Your task to perform on an android device: turn on translation in the chrome app Image 0: 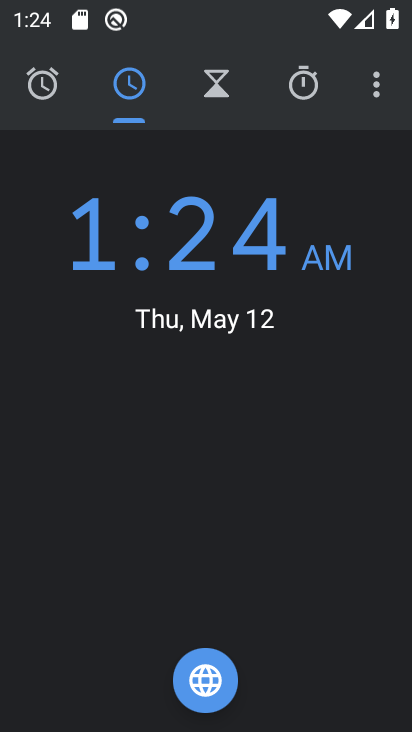
Step 0: press home button
Your task to perform on an android device: turn on translation in the chrome app Image 1: 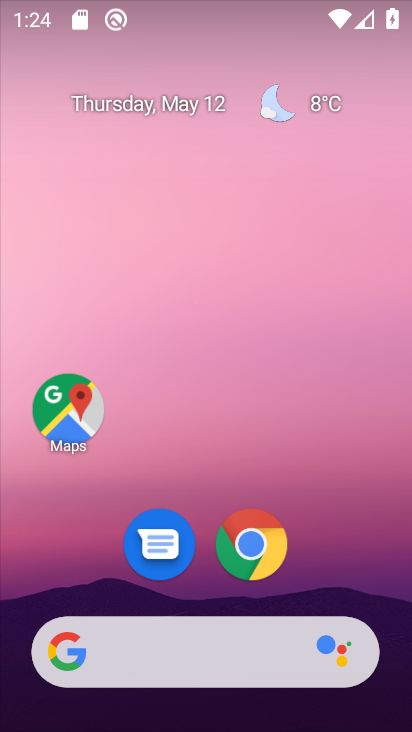
Step 1: click (259, 555)
Your task to perform on an android device: turn on translation in the chrome app Image 2: 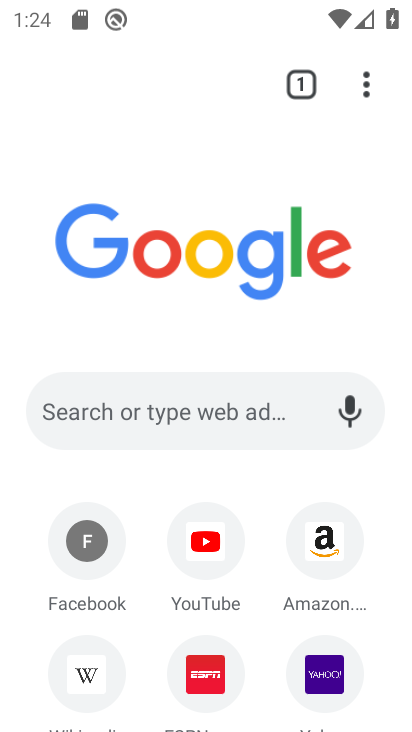
Step 2: click (371, 85)
Your task to perform on an android device: turn on translation in the chrome app Image 3: 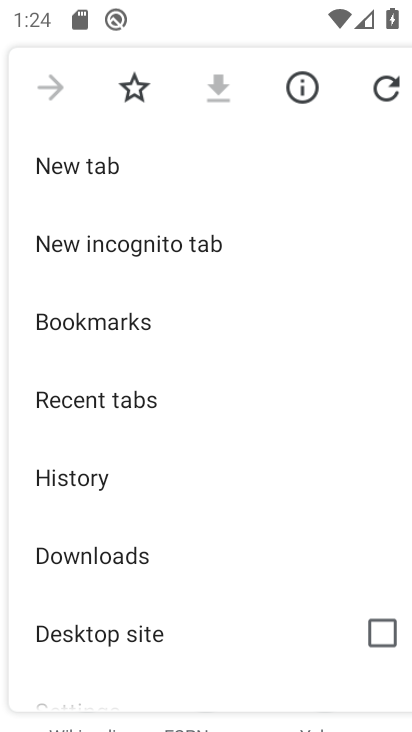
Step 3: drag from (197, 641) to (265, 209)
Your task to perform on an android device: turn on translation in the chrome app Image 4: 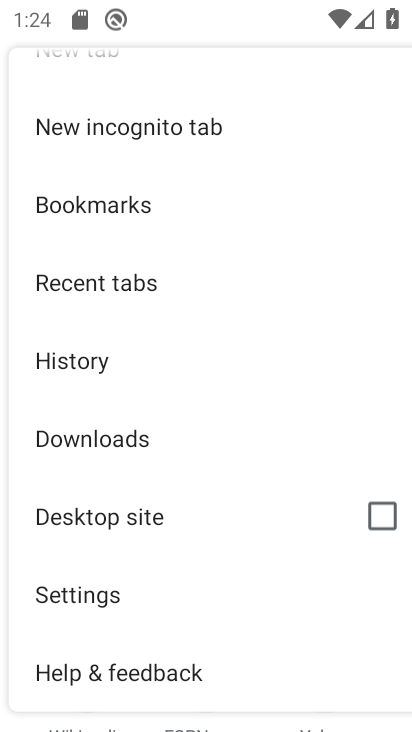
Step 4: click (103, 594)
Your task to perform on an android device: turn on translation in the chrome app Image 5: 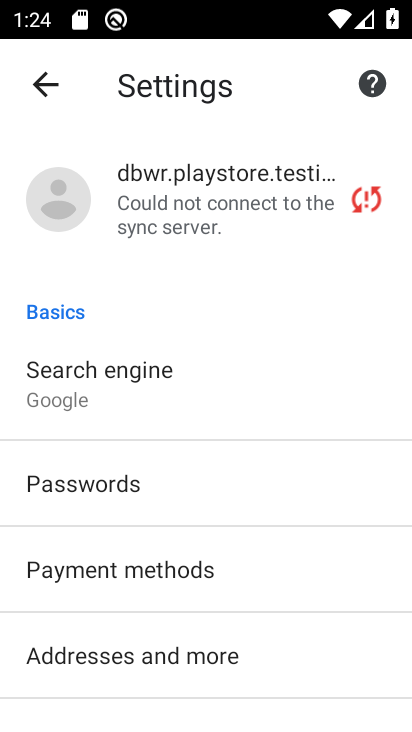
Step 5: drag from (166, 645) to (242, 208)
Your task to perform on an android device: turn on translation in the chrome app Image 6: 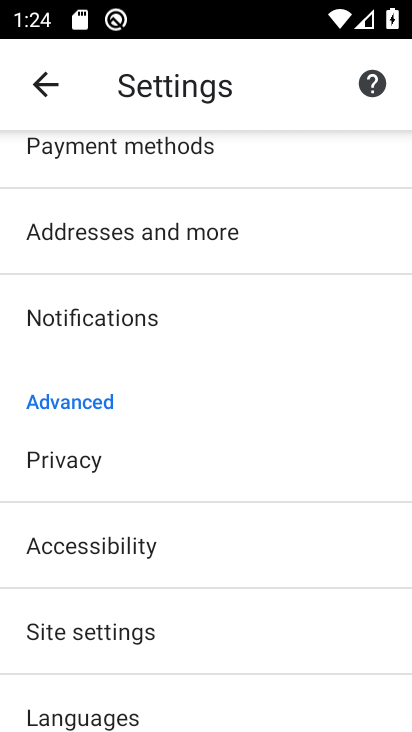
Step 6: click (188, 712)
Your task to perform on an android device: turn on translation in the chrome app Image 7: 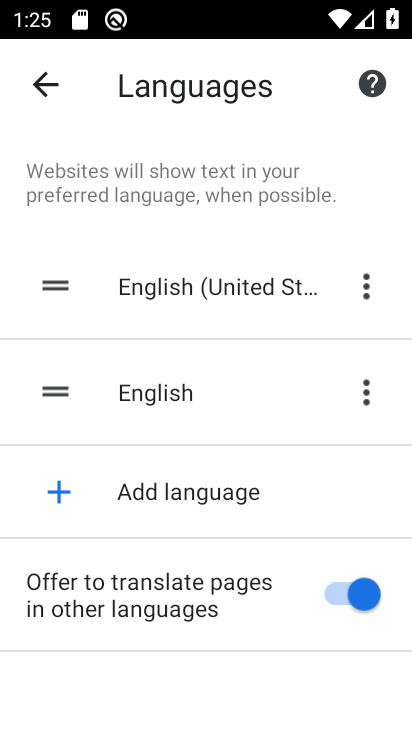
Step 7: task complete